Your task to perform on an android device: open a new tab in the chrome app Image 0: 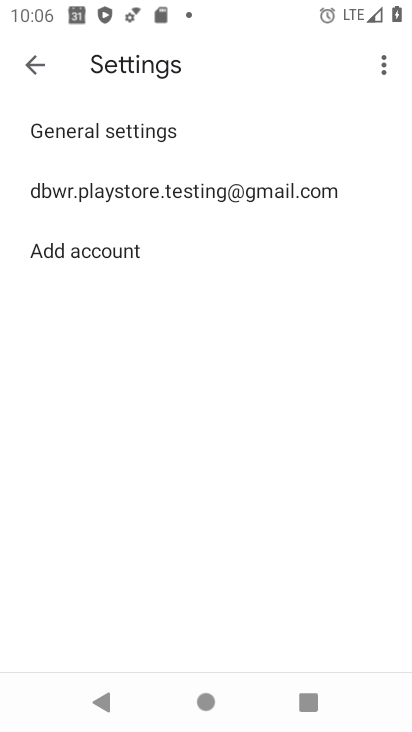
Step 0: press home button
Your task to perform on an android device: open a new tab in the chrome app Image 1: 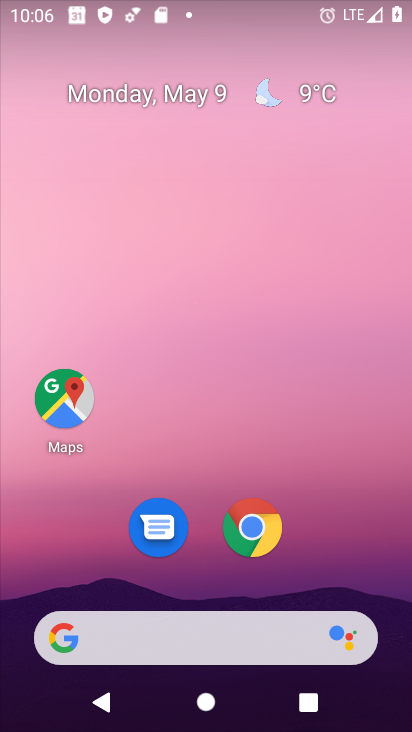
Step 1: click (248, 527)
Your task to perform on an android device: open a new tab in the chrome app Image 2: 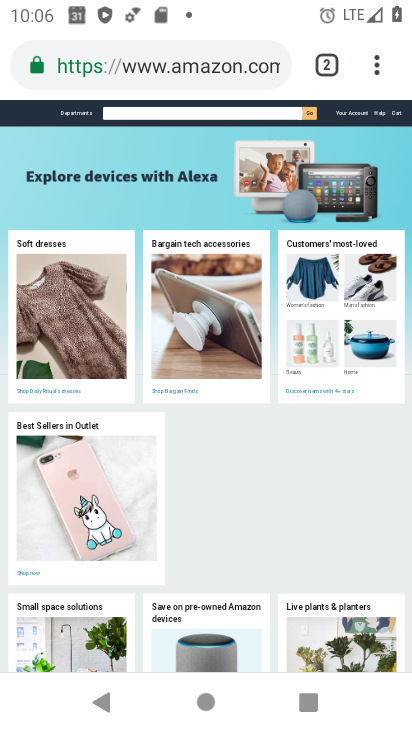
Step 2: click (373, 70)
Your task to perform on an android device: open a new tab in the chrome app Image 3: 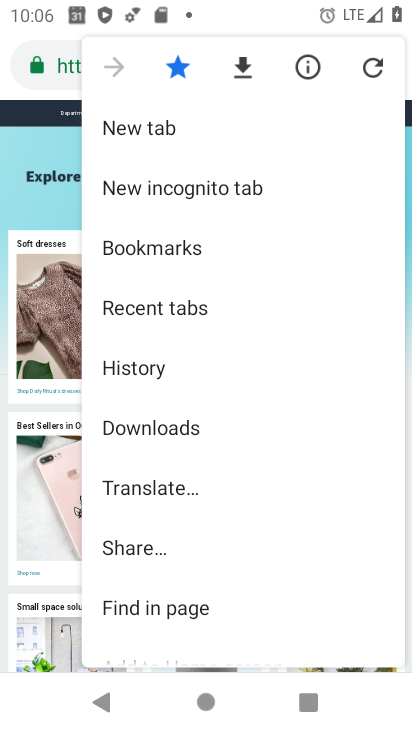
Step 3: click (131, 129)
Your task to perform on an android device: open a new tab in the chrome app Image 4: 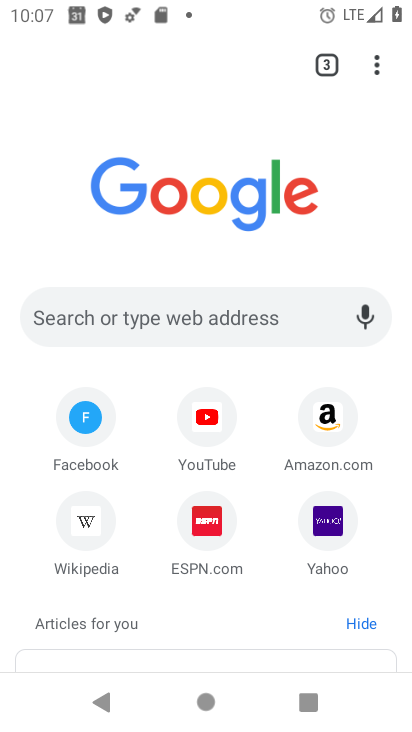
Step 4: task complete